Your task to perform on an android device: Open the stopwatch Image 0: 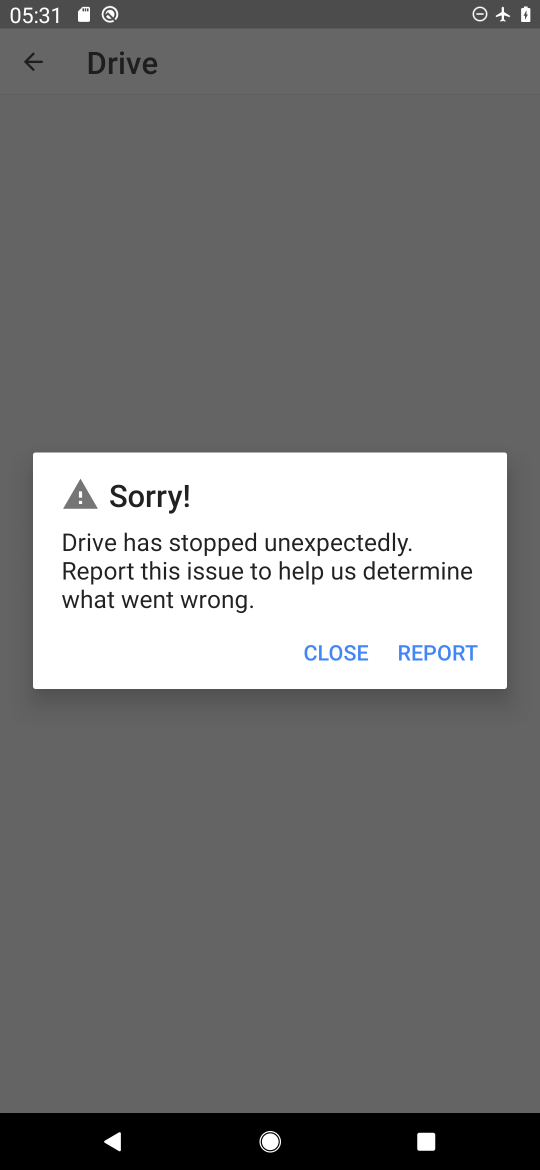
Step 0: press home button
Your task to perform on an android device: Open the stopwatch Image 1: 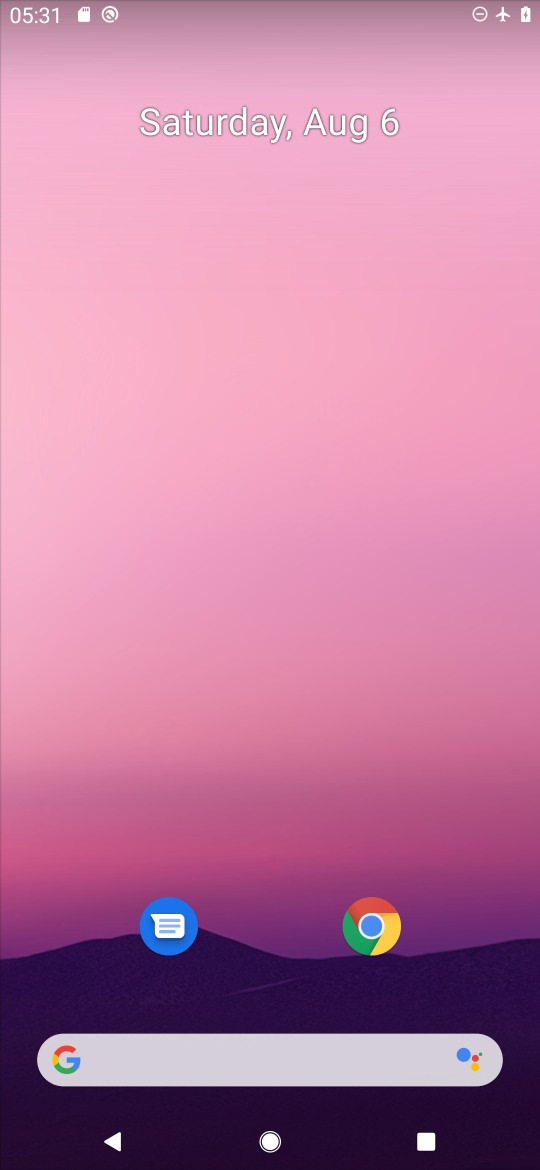
Step 1: drag from (255, 931) to (329, 350)
Your task to perform on an android device: Open the stopwatch Image 2: 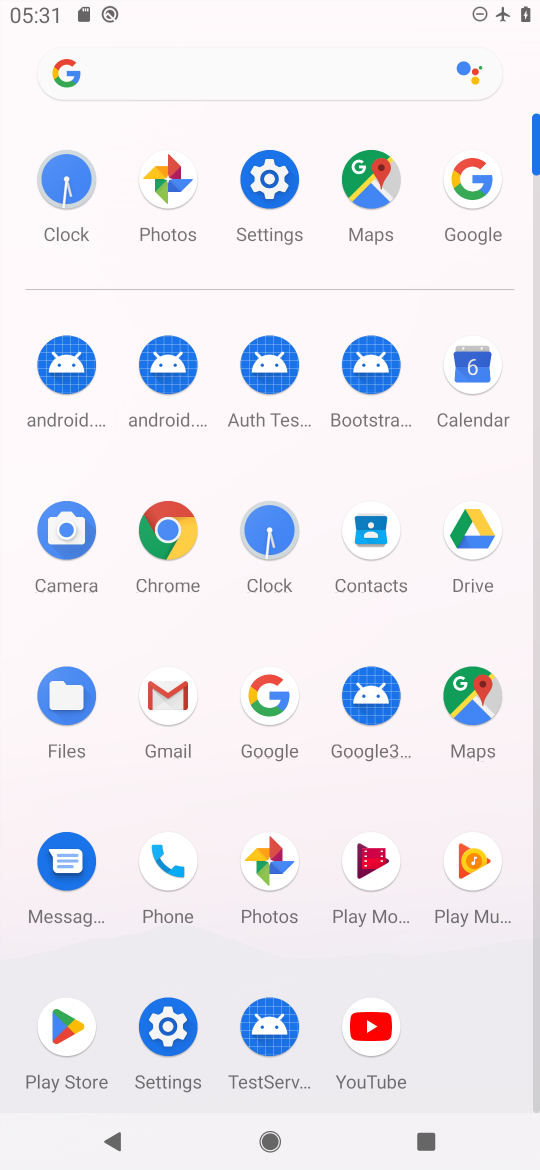
Step 2: click (286, 547)
Your task to perform on an android device: Open the stopwatch Image 3: 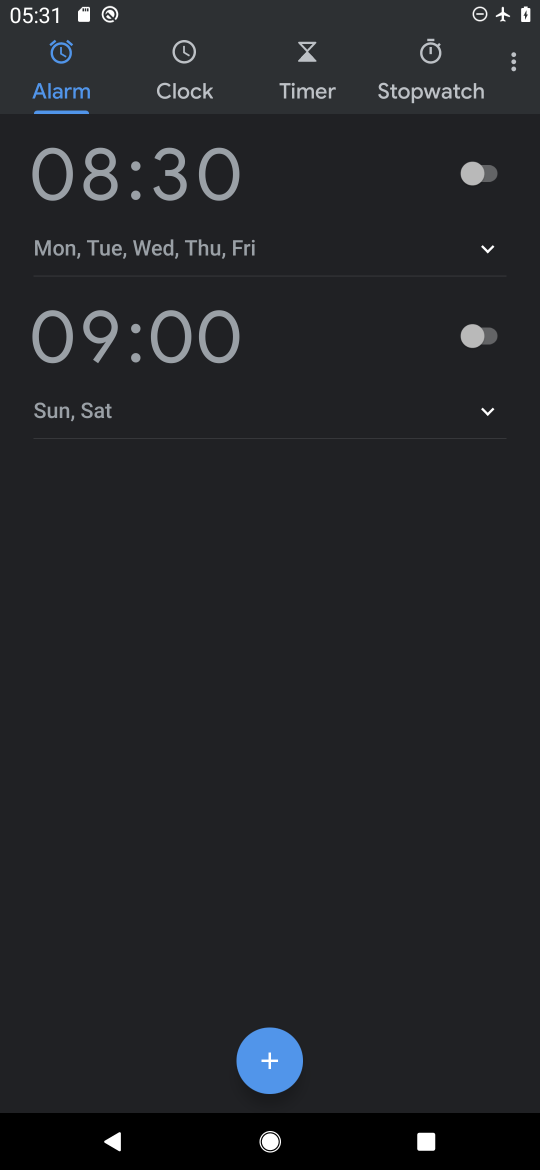
Step 3: click (448, 70)
Your task to perform on an android device: Open the stopwatch Image 4: 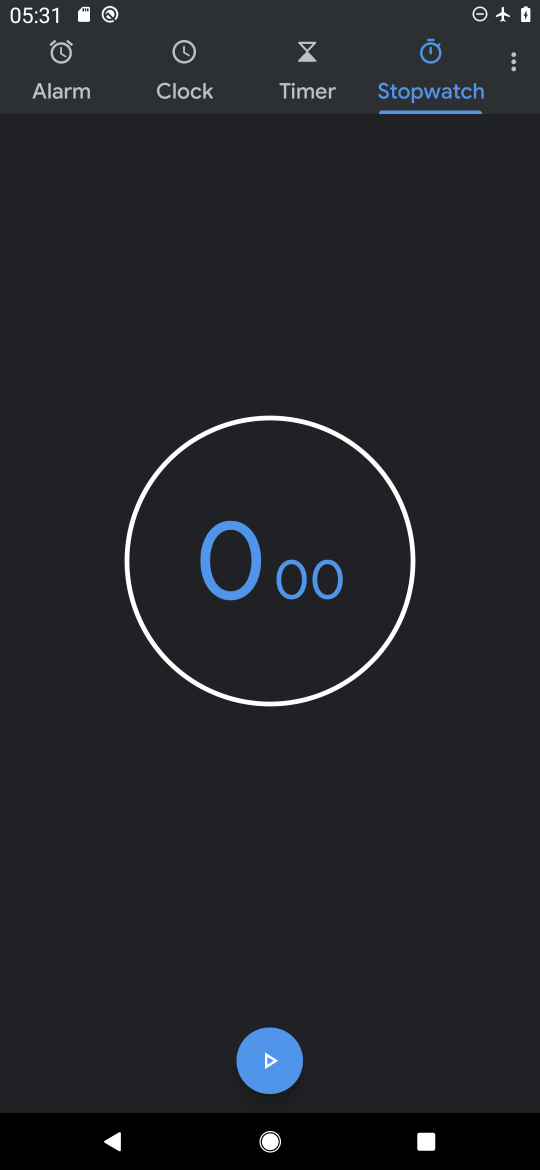
Step 4: task complete